Your task to perform on an android device: toggle data saver in the chrome app Image 0: 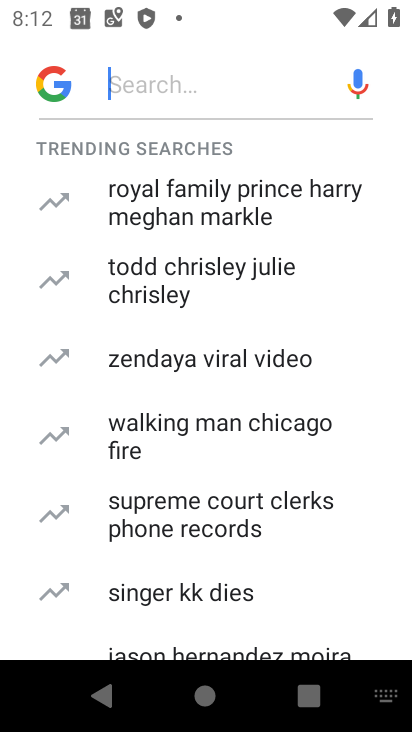
Step 0: press home button
Your task to perform on an android device: toggle data saver in the chrome app Image 1: 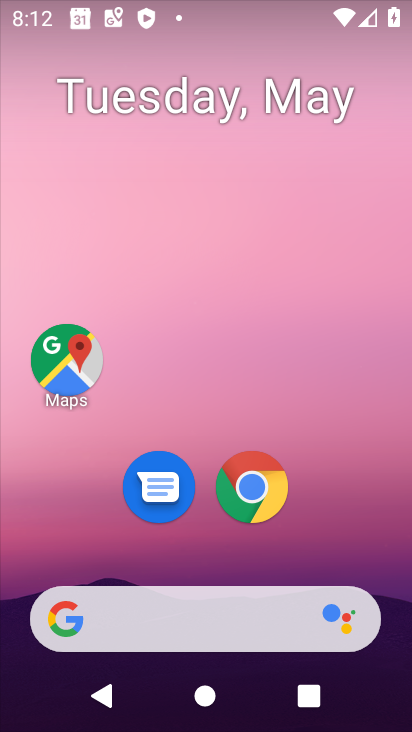
Step 1: drag from (377, 552) to (362, 221)
Your task to perform on an android device: toggle data saver in the chrome app Image 2: 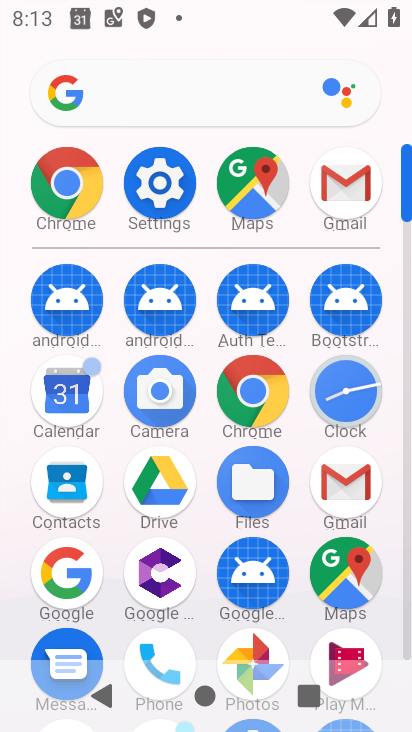
Step 2: click (268, 397)
Your task to perform on an android device: toggle data saver in the chrome app Image 3: 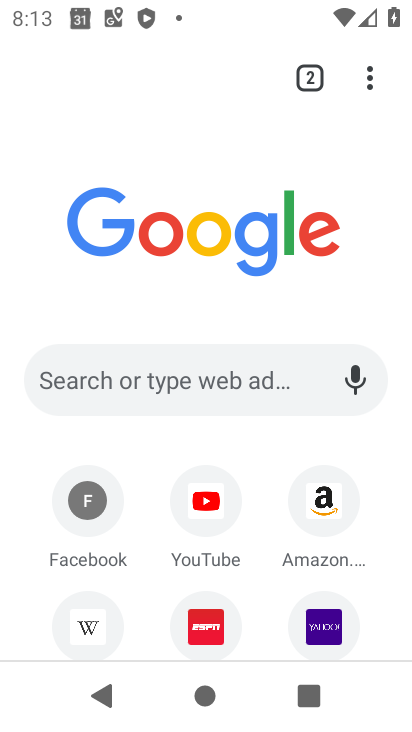
Step 3: click (372, 88)
Your task to perform on an android device: toggle data saver in the chrome app Image 4: 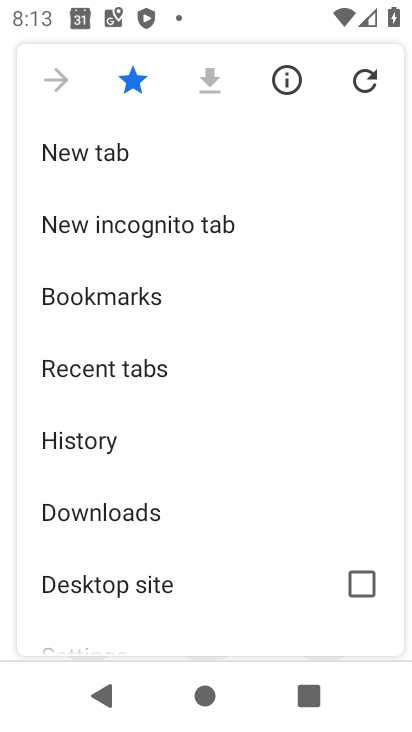
Step 4: drag from (297, 570) to (312, 419)
Your task to perform on an android device: toggle data saver in the chrome app Image 5: 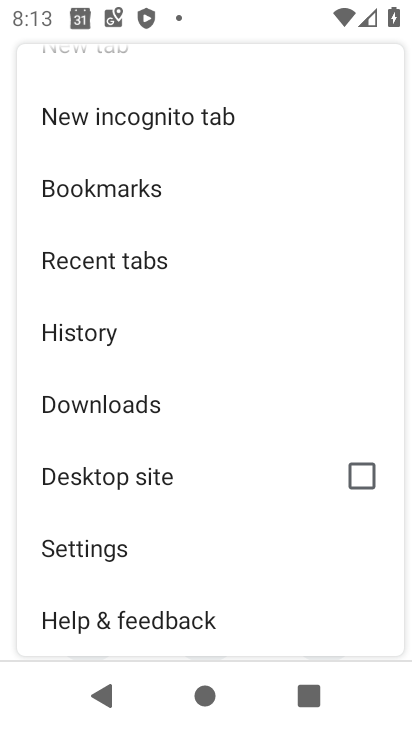
Step 5: click (124, 563)
Your task to perform on an android device: toggle data saver in the chrome app Image 6: 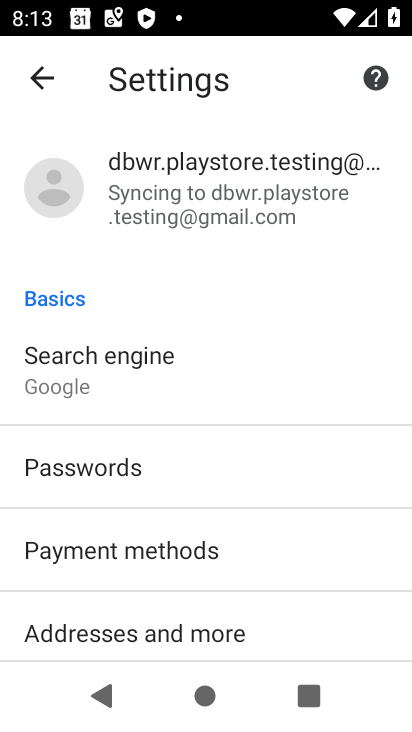
Step 6: drag from (336, 584) to (346, 485)
Your task to perform on an android device: toggle data saver in the chrome app Image 7: 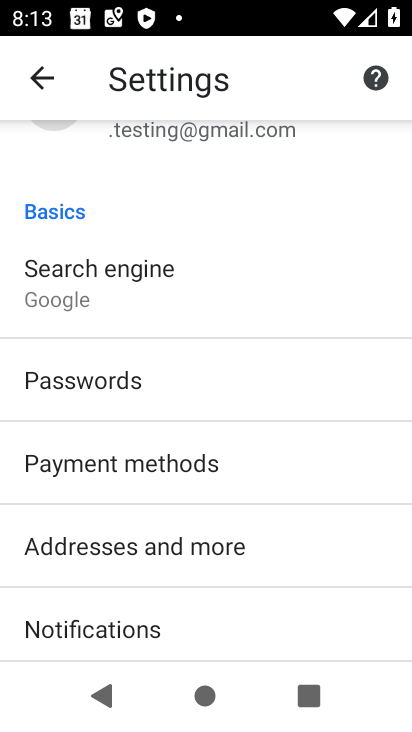
Step 7: drag from (349, 596) to (349, 487)
Your task to perform on an android device: toggle data saver in the chrome app Image 8: 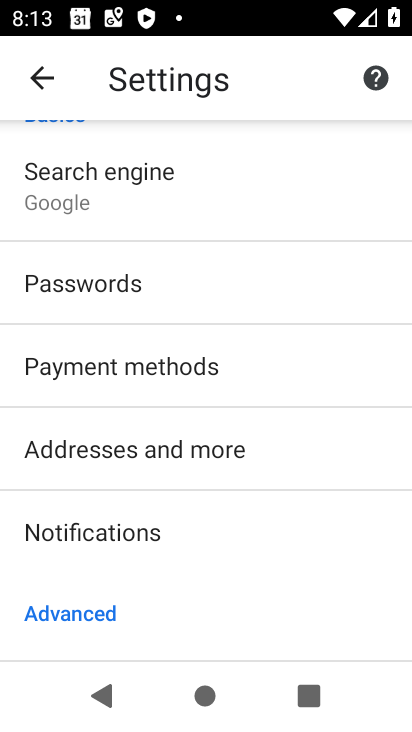
Step 8: drag from (348, 535) to (351, 419)
Your task to perform on an android device: toggle data saver in the chrome app Image 9: 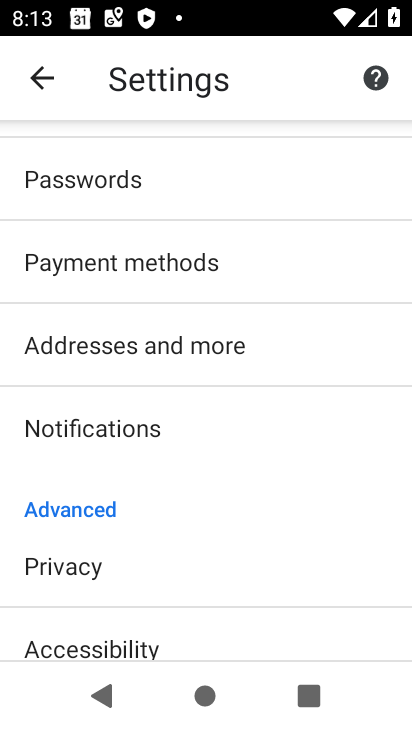
Step 9: drag from (341, 539) to (341, 435)
Your task to perform on an android device: toggle data saver in the chrome app Image 10: 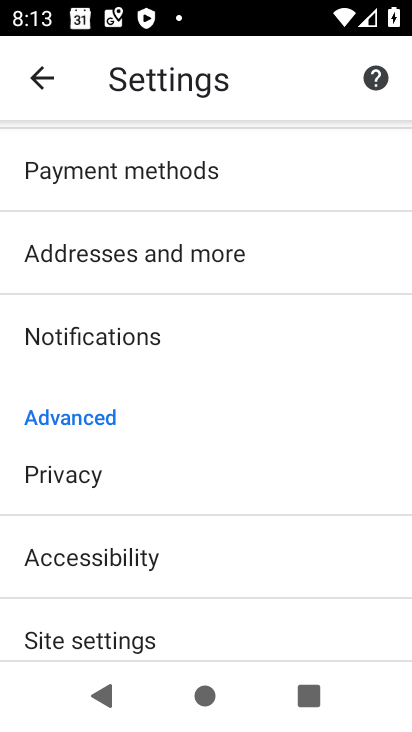
Step 10: drag from (342, 563) to (342, 395)
Your task to perform on an android device: toggle data saver in the chrome app Image 11: 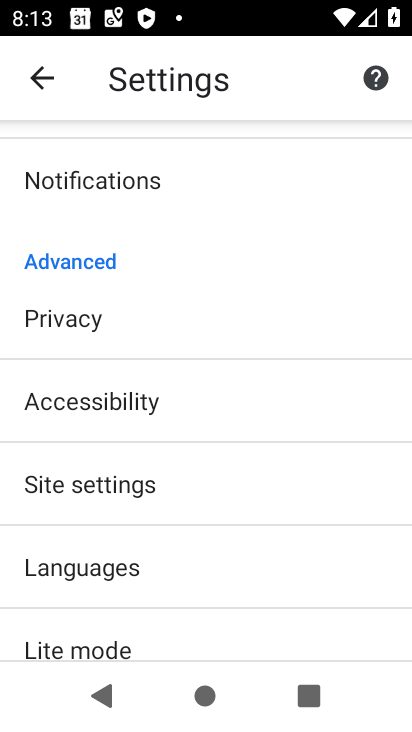
Step 11: drag from (335, 555) to (328, 428)
Your task to perform on an android device: toggle data saver in the chrome app Image 12: 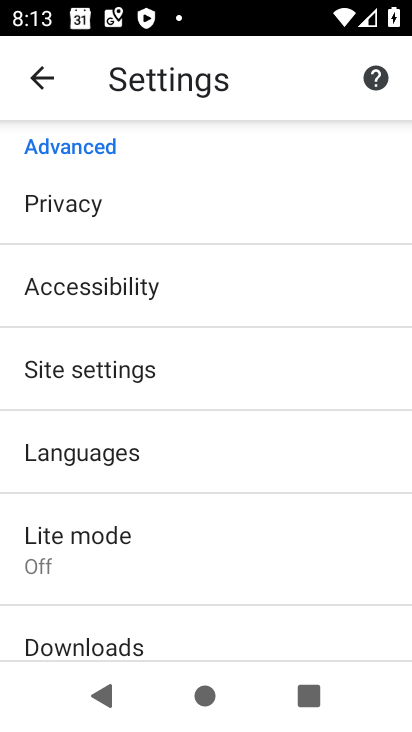
Step 12: click (330, 542)
Your task to perform on an android device: toggle data saver in the chrome app Image 13: 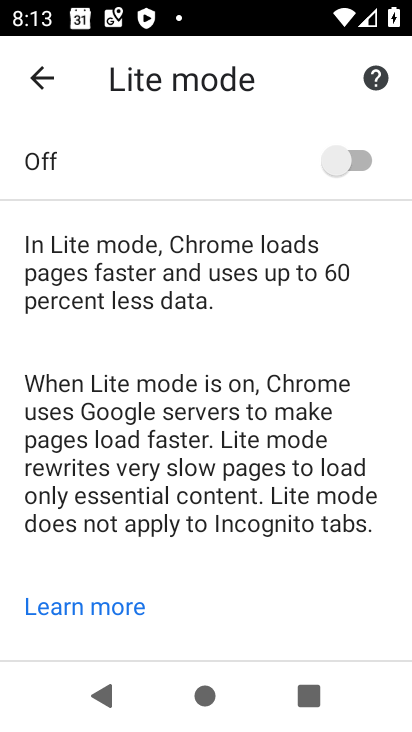
Step 13: drag from (333, 570) to (324, 380)
Your task to perform on an android device: toggle data saver in the chrome app Image 14: 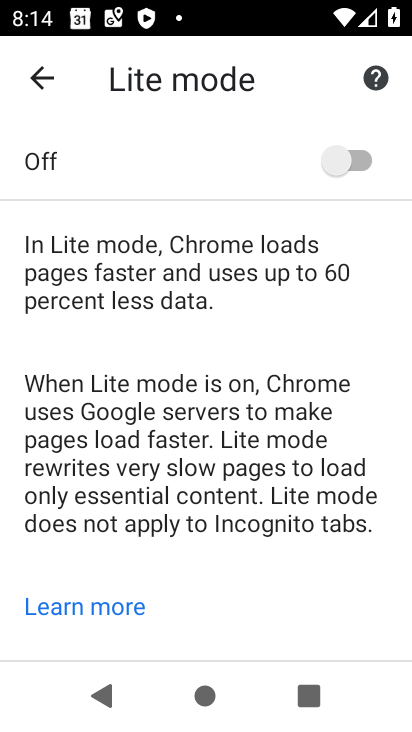
Step 14: click (358, 162)
Your task to perform on an android device: toggle data saver in the chrome app Image 15: 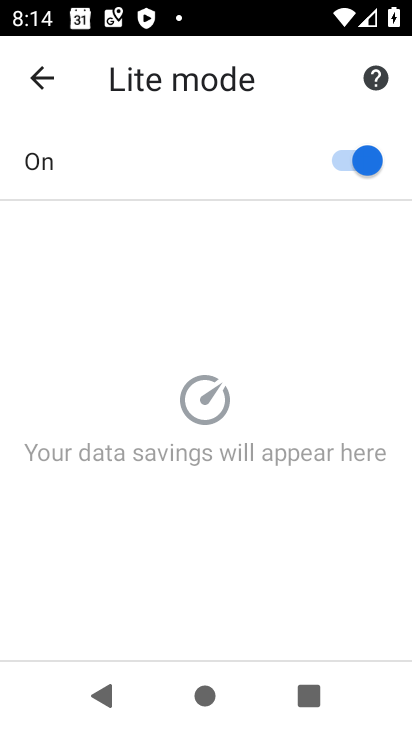
Step 15: task complete